Your task to perform on an android device: Is it going to rain today? Image 0: 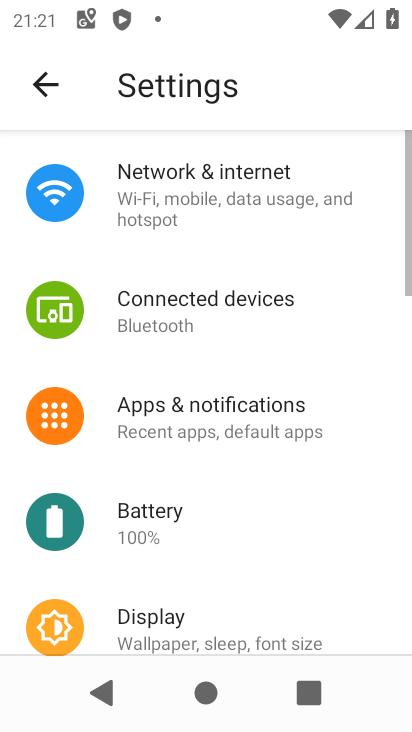
Step 0: press home button
Your task to perform on an android device: Is it going to rain today? Image 1: 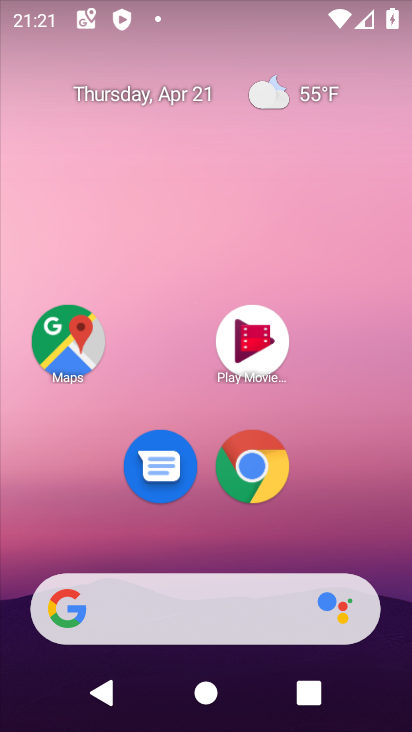
Step 1: click (266, 475)
Your task to perform on an android device: Is it going to rain today? Image 2: 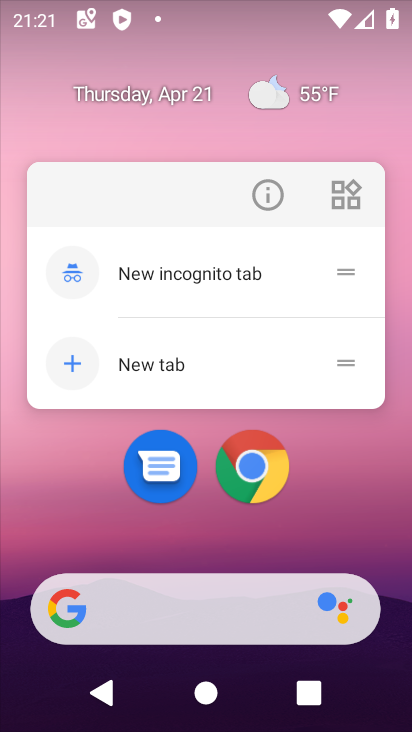
Step 2: click (230, 475)
Your task to perform on an android device: Is it going to rain today? Image 3: 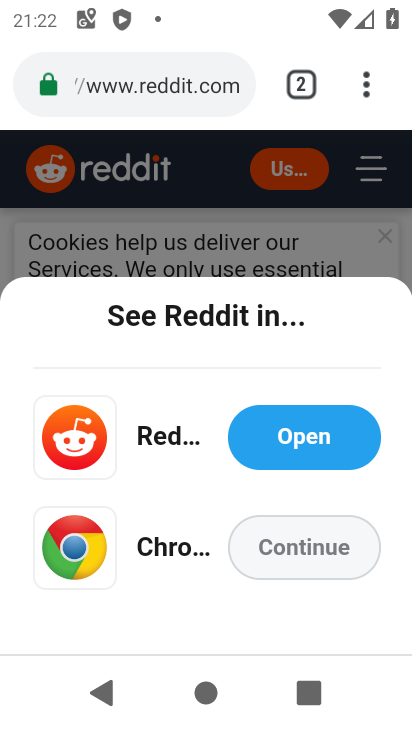
Step 3: click (207, 92)
Your task to perform on an android device: Is it going to rain today? Image 4: 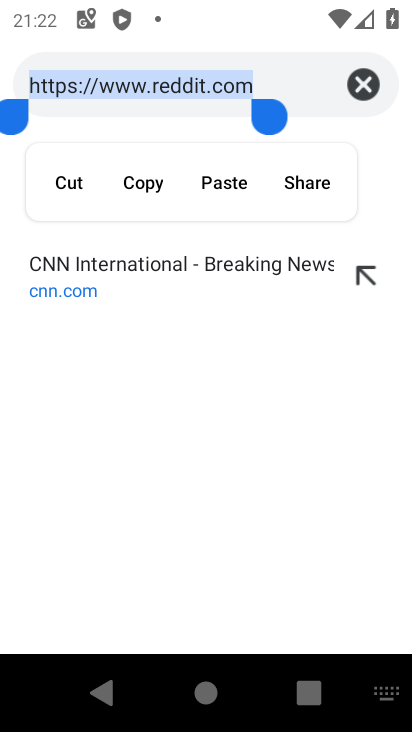
Step 4: type "is it going to rain today"
Your task to perform on an android device: Is it going to rain today? Image 5: 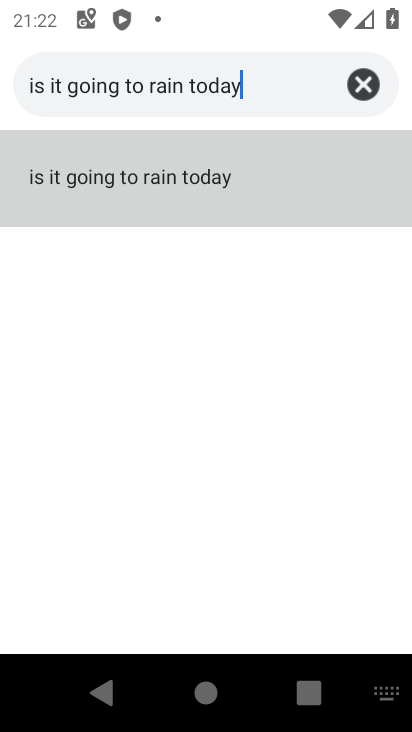
Step 5: click (75, 190)
Your task to perform on an android device: Is it going to rain today? Image 6: 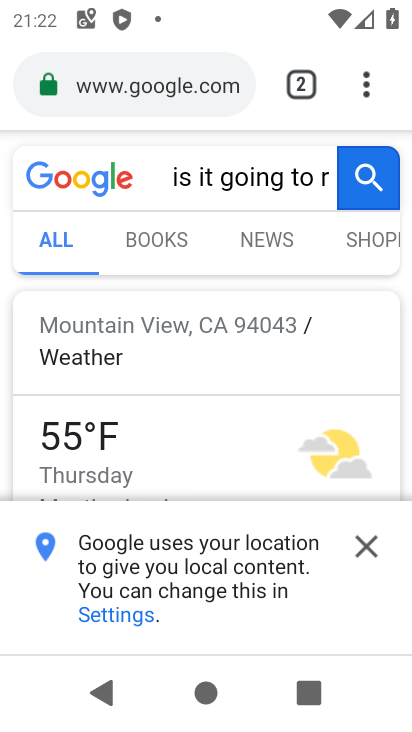
Step 6: click (368, 552)
Your task to perform on an android device: Is it going to rain today? Image 7: 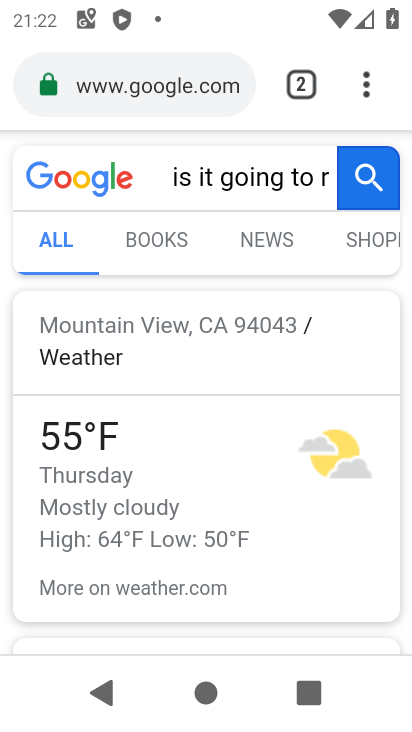
Step 7: click (267, 497)
Your task to perform on an android device: Is it going to rain today? Image 8: 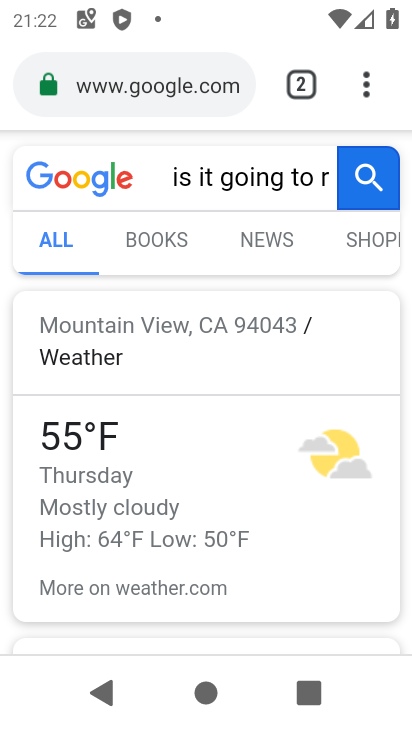
Step 8: click (239, 362)
Your task to perform on an android device: Is it going to rain today? Image 9: 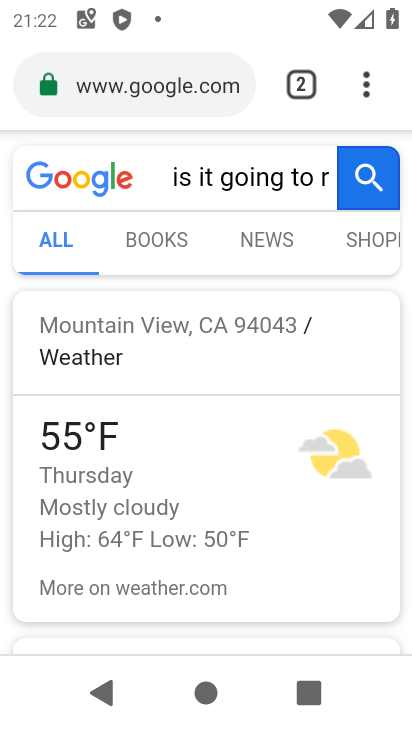
Step 9: task complete